Your task to perform on an android device: change notification settings in the gmail app Image 0: 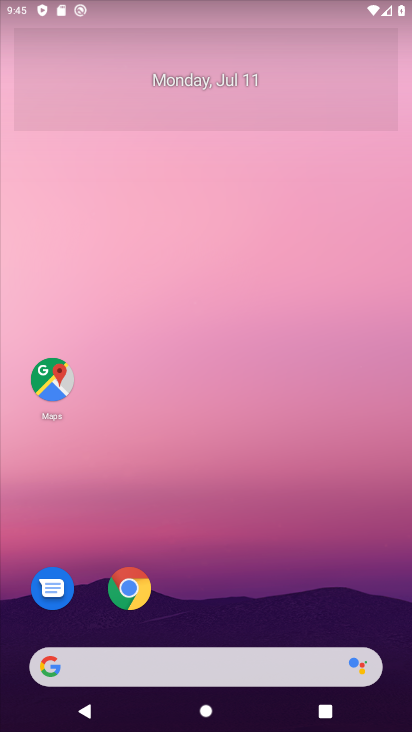
Step 0: drag from (189, 616) to (257, 15)
Your task to perform on an android device: change notification settings in the gmail app Image 1: 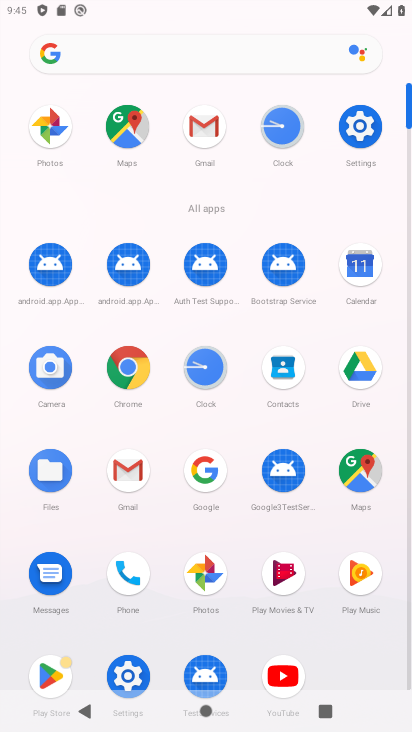
Step 1: click (134, 471)
Your task to perform on an android device: change notification settings in the gmail app Image 2: 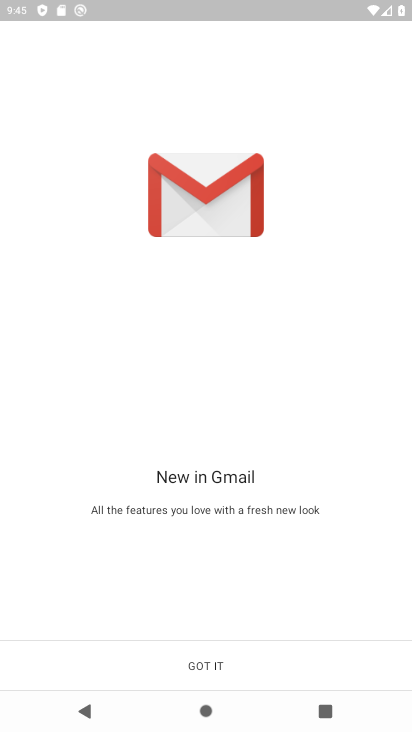
Step 2: click (251, 666)
Your task to perform on an android device: change notification settings in the gmail app Image 3: 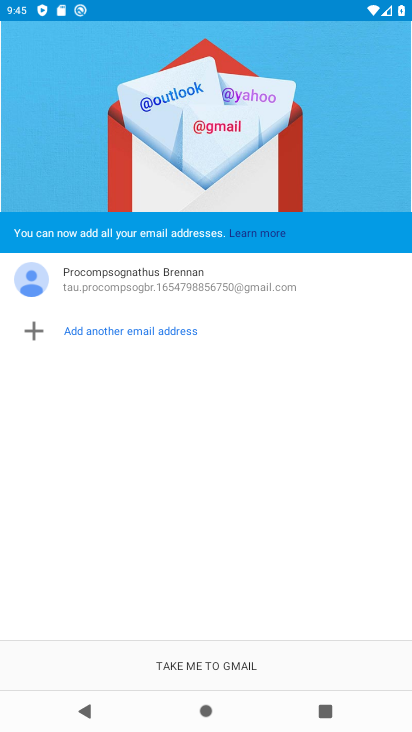
Step 3: click (249, 663)
Your task to perform on an android device: change notification settings in the gmail app Image 4: 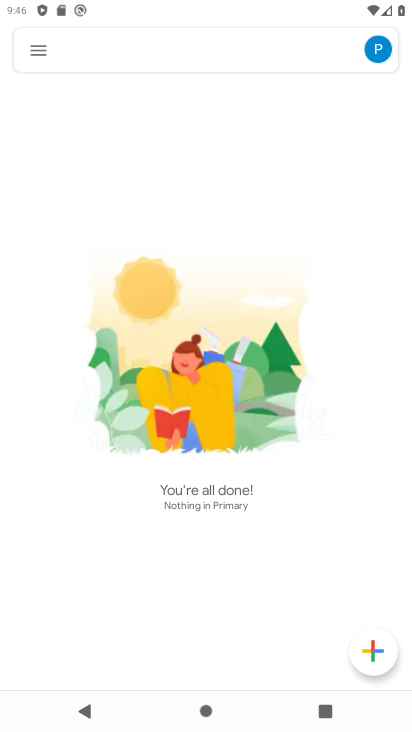
Step 4: click (36, 45)
Your task to perform on an android device: change notification settings in the gmail app Image 5: 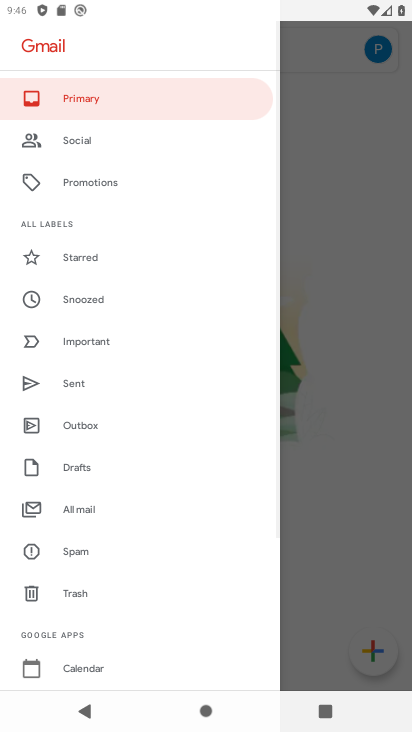
Step 5: drag from (88, 640) to (162, 126)
Your task to perform on an android device: change notification settings in the gmail app Image 6: 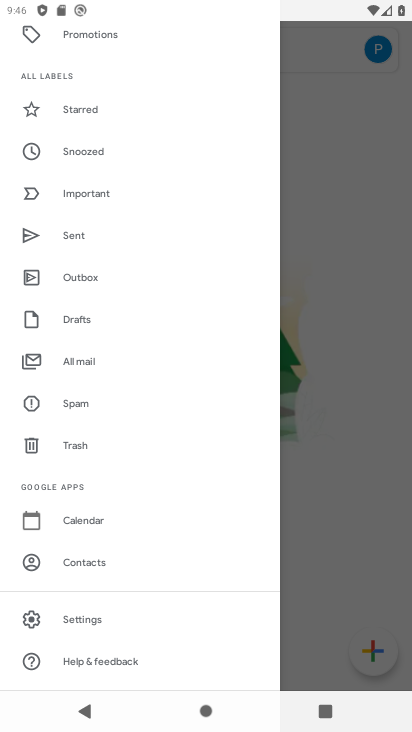
Step 6: click (102, 624)
Your task to perform on an android device: change notification settings in the gmail app Image 7: 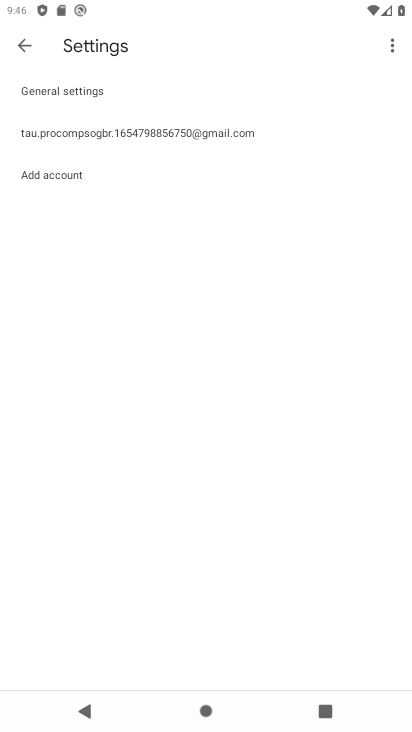
Step 7: click (106, 132)
Your task to perform on an android device: change notification settings in the gmail app Image 8: 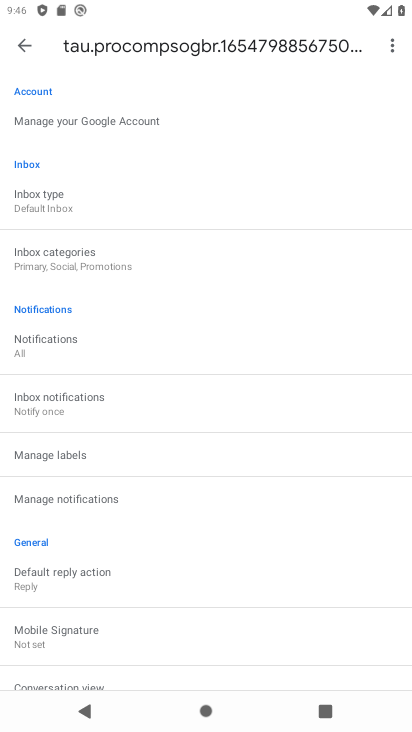
Step 8: click (32, 42)
Your task to perform on an android device: change notification settings in the gmail app Image 9: 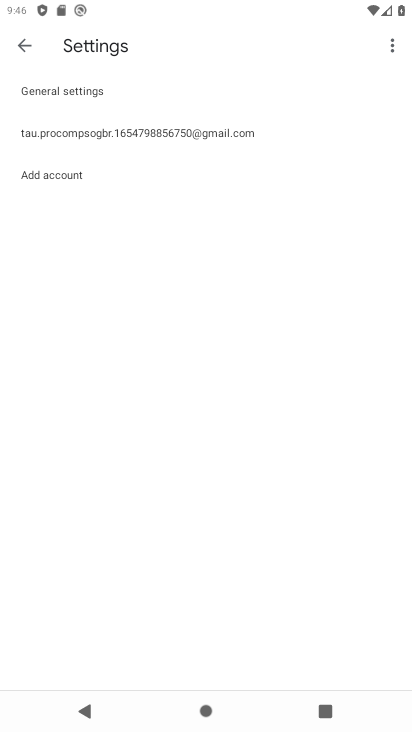
Step 9: click (102, 80)
Your task to perform on an android device: change notification settings in the gmail app Image 10: 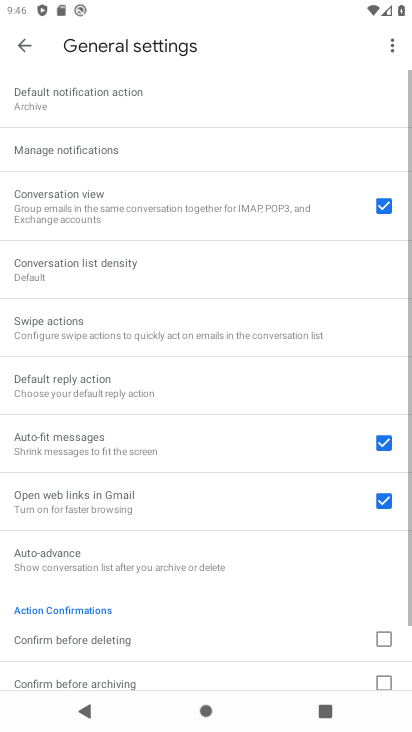
Step 10: click (103, 156)
Your task to perform on an android device: change notification settings in the gmail app Image 11: 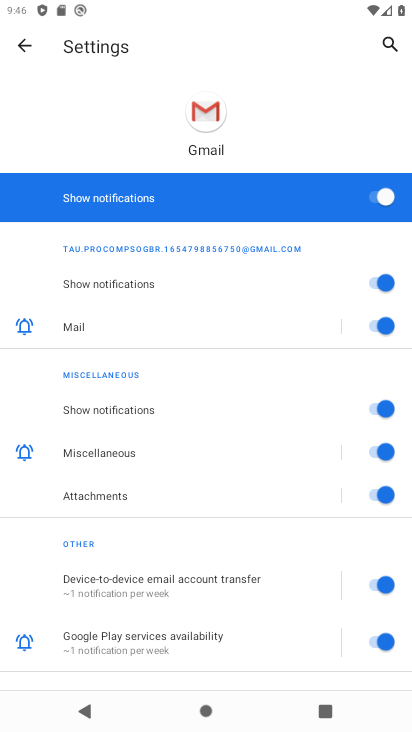
Step 11: click (360, 204)
Your task to perform on an android device: change notification settings in the gmail app Image 12: 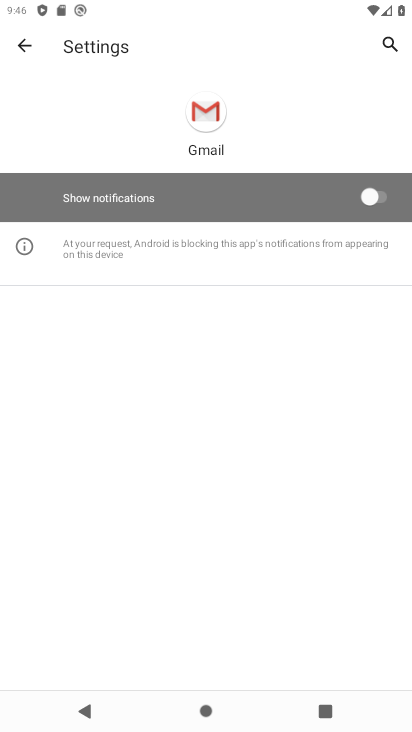
Step 12: click (367, 196)
Your task to perform on an android device: change notification settings in the gmail app Image 13: 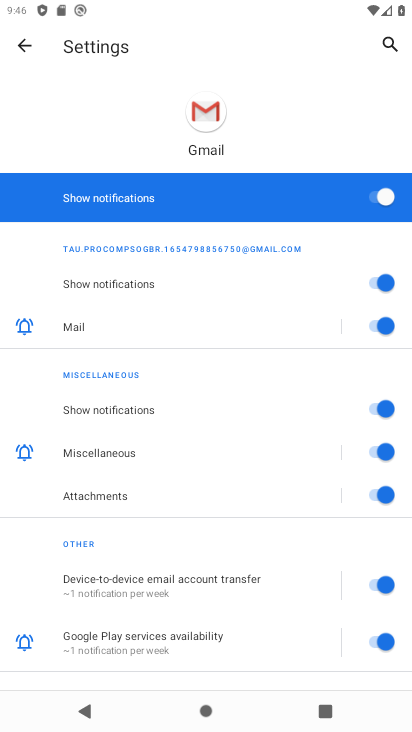
Step 13: click (354, 193)
Your task to perform on an android device: change notification settings in the gmail app Image 14: 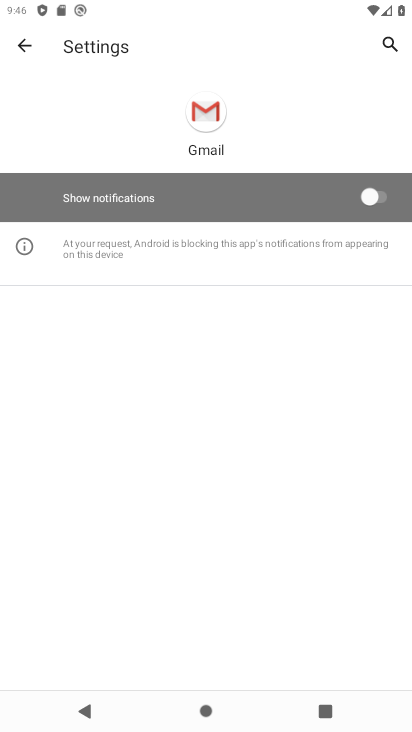
Step 14: task complete